Your task to perform on an android device: uninstall "Gmail" Image 0: 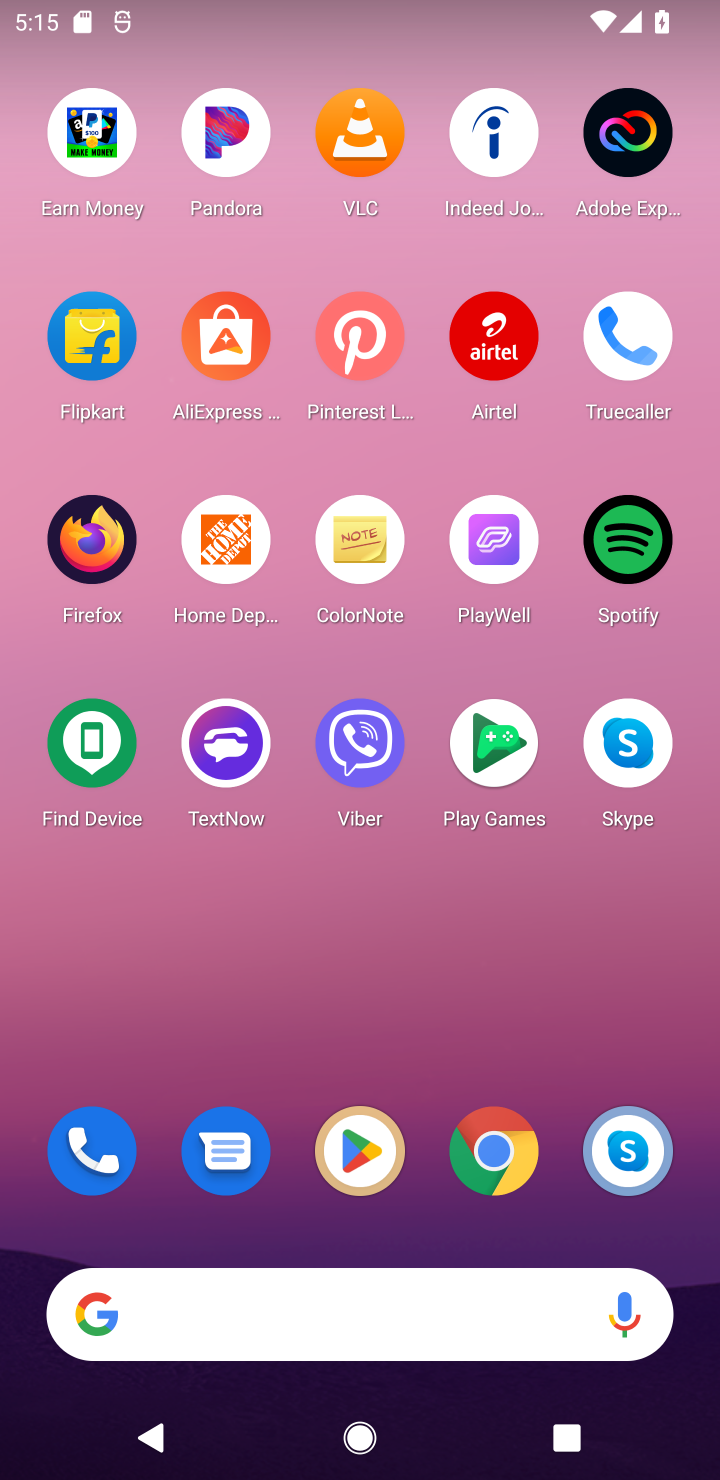
Step 0: press home button
Your task to perform on an android device: uninstall "Gmail" Image 1: 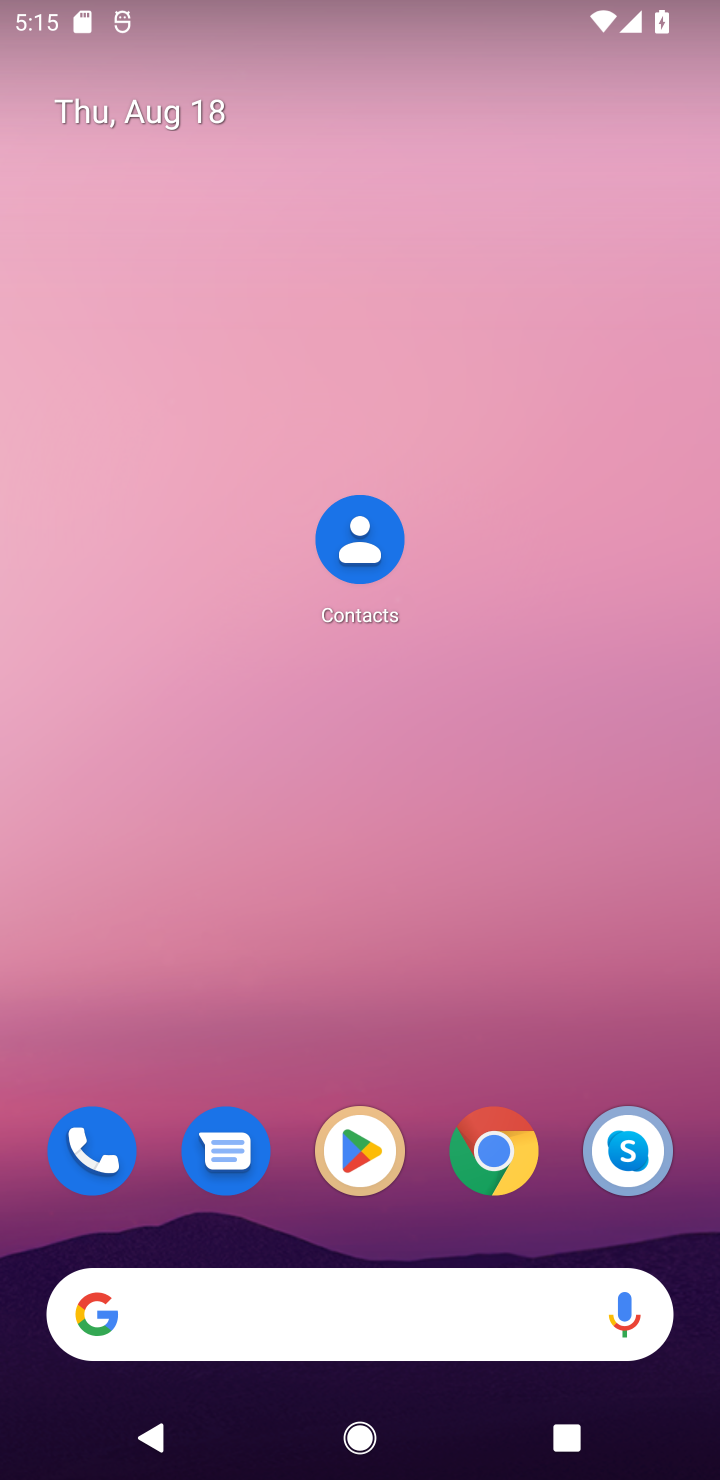
Step 1: task complete